Your task to perform on an android device: turn on sleep mode Image 0: 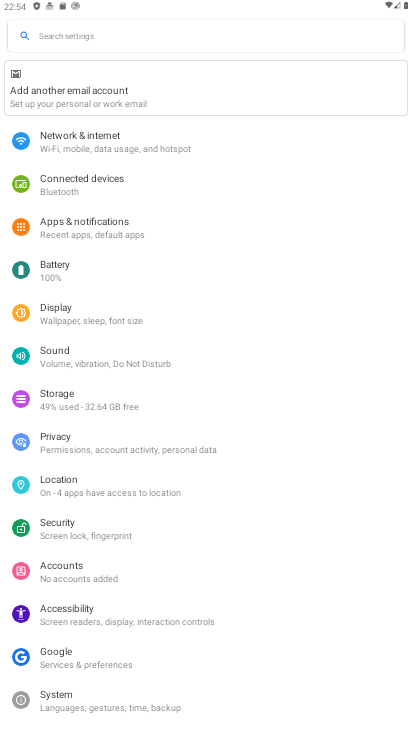
Step 0: click (68, 312)
Your task to perform on an android device: turn on sleep mode Image 1: 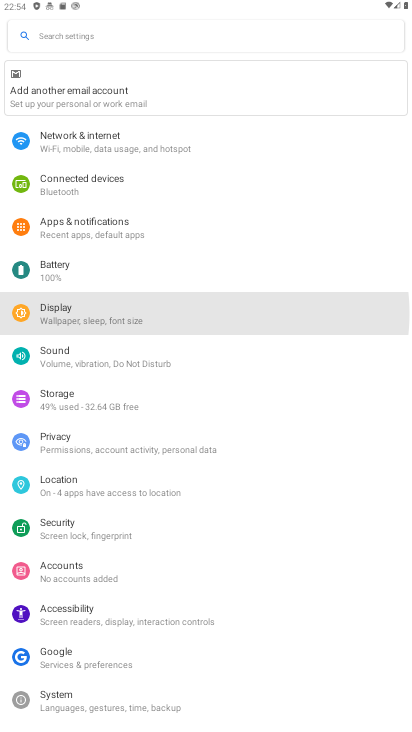
Step 1: click (69, 313)
Your task to perform on an android device: turn on sleep mode Image 2: 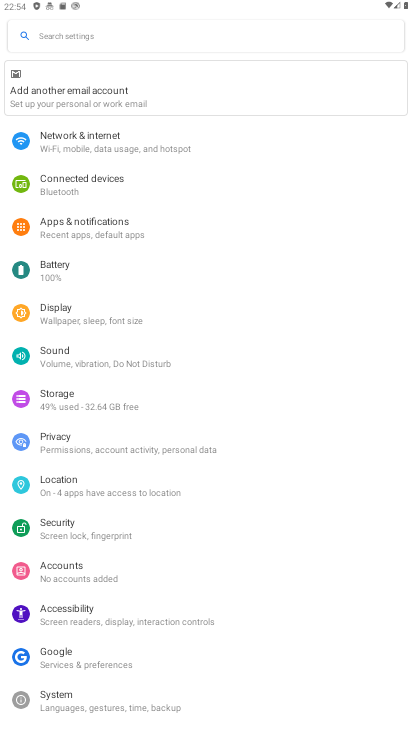
Step 2: click (72, 310)
Your task to perform on an android device: turn on sleep mode Image 3: 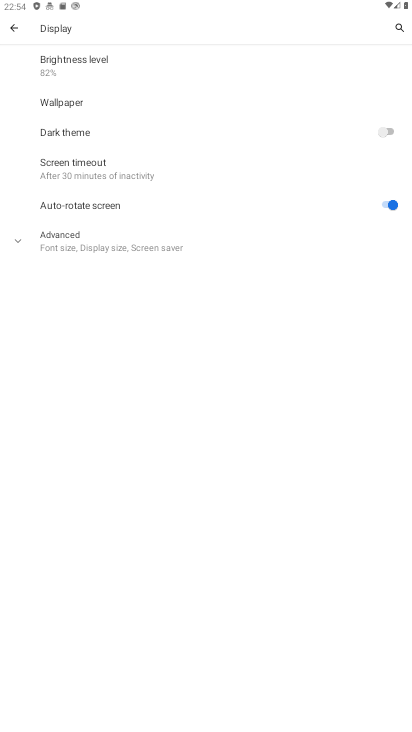
Step 3: click (89, 169)
Your task to perform on an android device: turn on sleep mode Image 4: 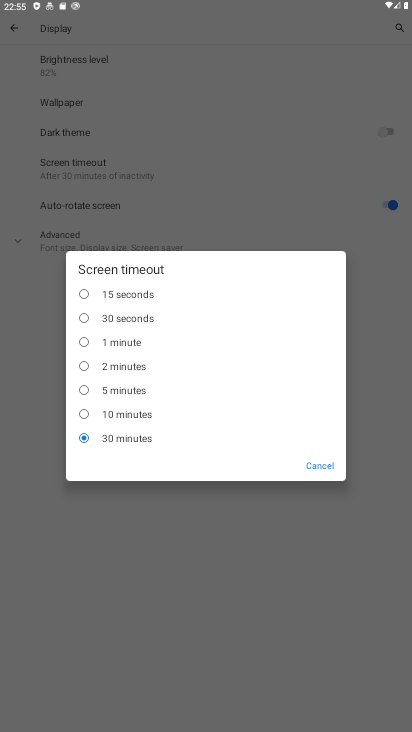
Step 4: click (85, 364)
Your task to perform on an android device: turn on sleep mode Image 5: 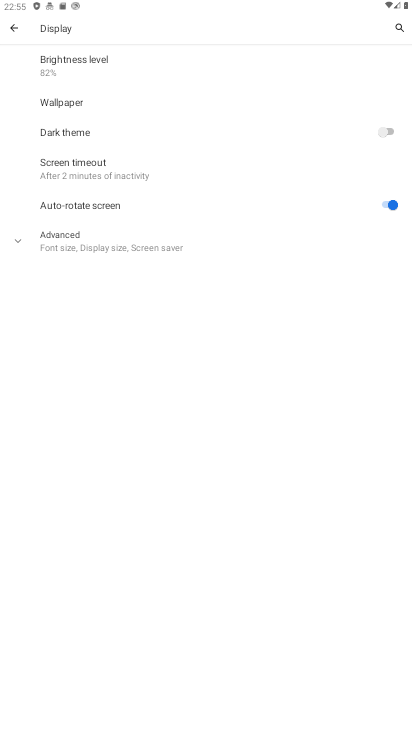
Step 5: task complete